Your task to perform on an android device: turn on showing notifications on the lock screen Image 0: 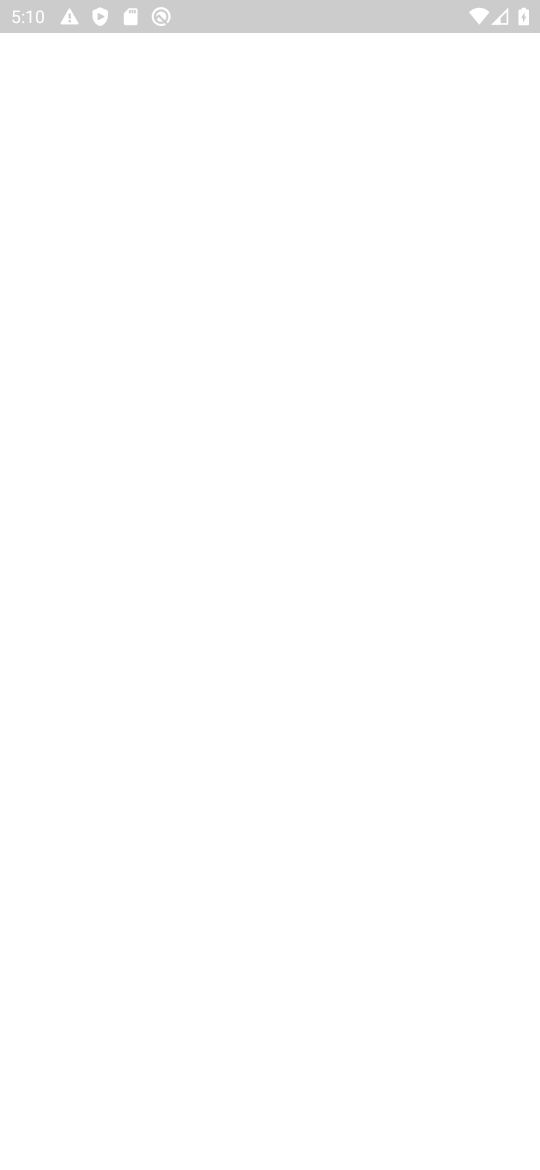
Step 0: press back button
Your task to perform on an android device: turn on showing notifications on the lock screen Image 1: 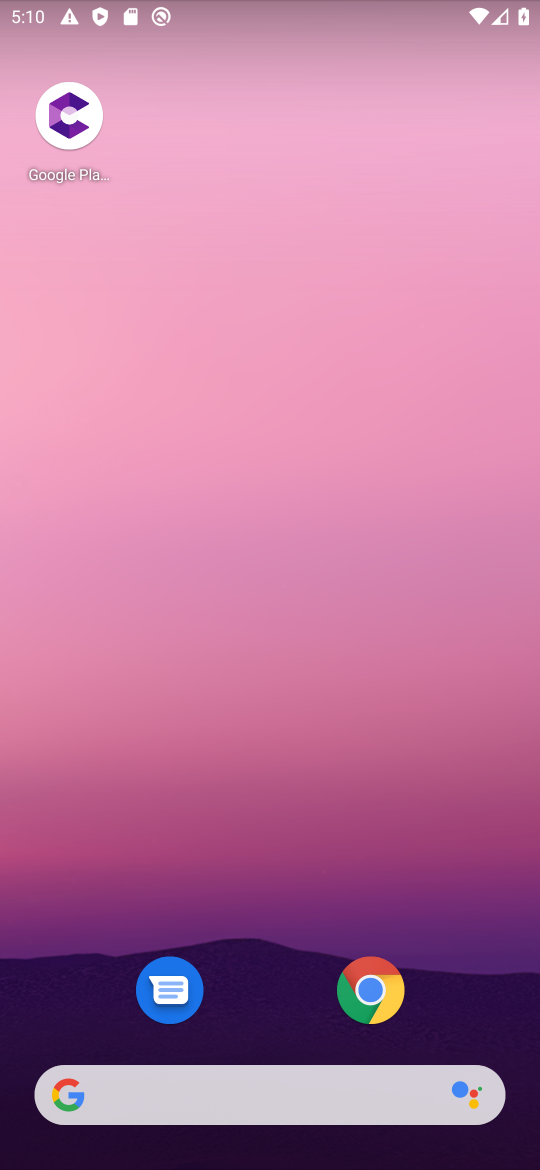
Step 1: press home button
Your task to perform on an android device: turn on showing notifications on the lock screen Image 2: 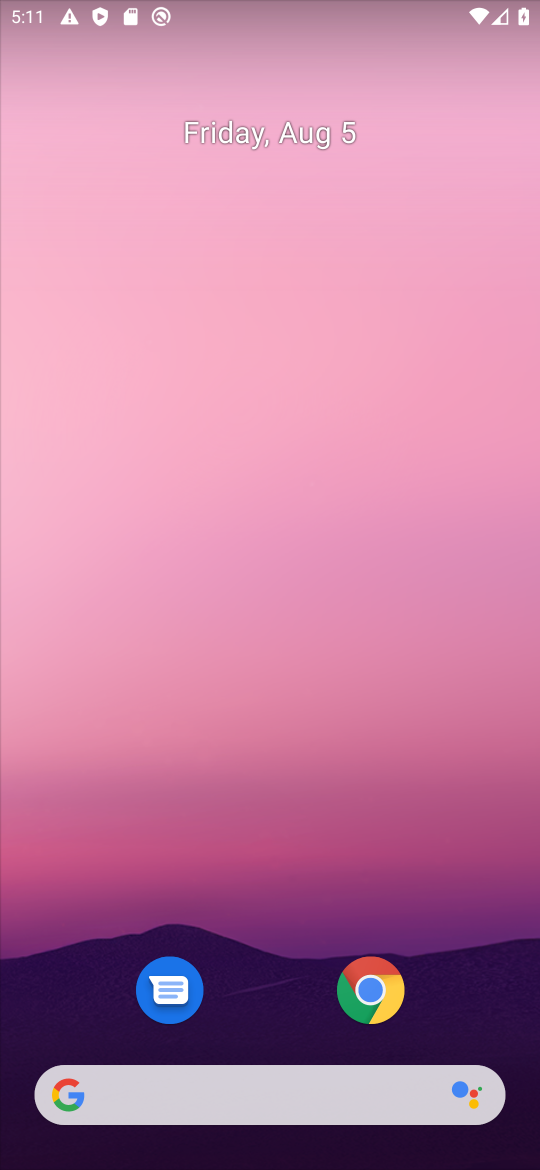
Step 2: drag from (209, 1051) to (190, 503)
Your task to perform on an android device: turn on showing notifications on the lock screen Image 3: 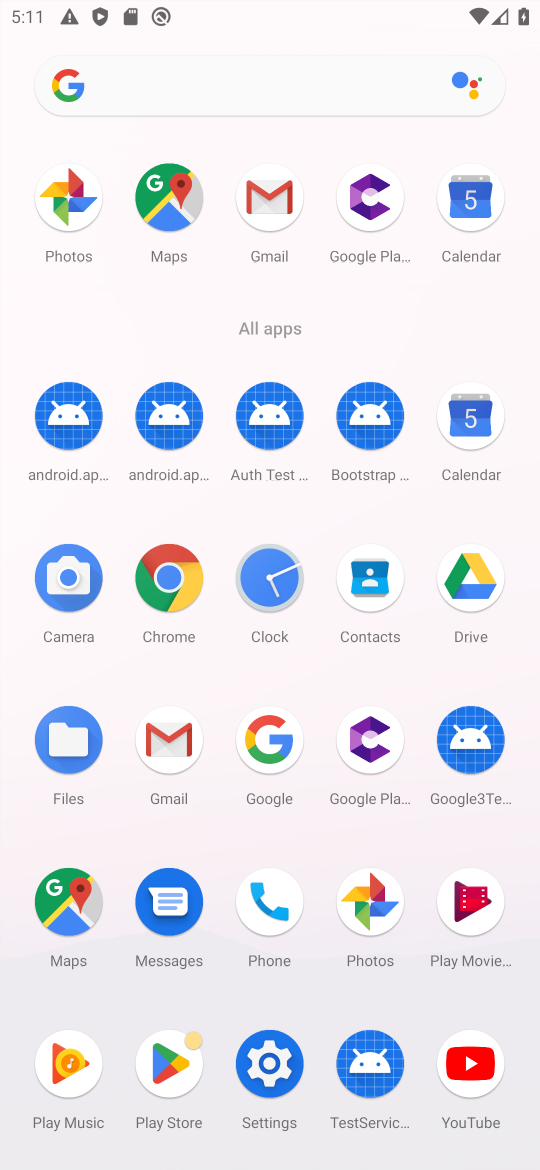
Step 3: click (263, 1061)
Your task to perform on an android device: turn on showing notifications on the lock screen Image 4: 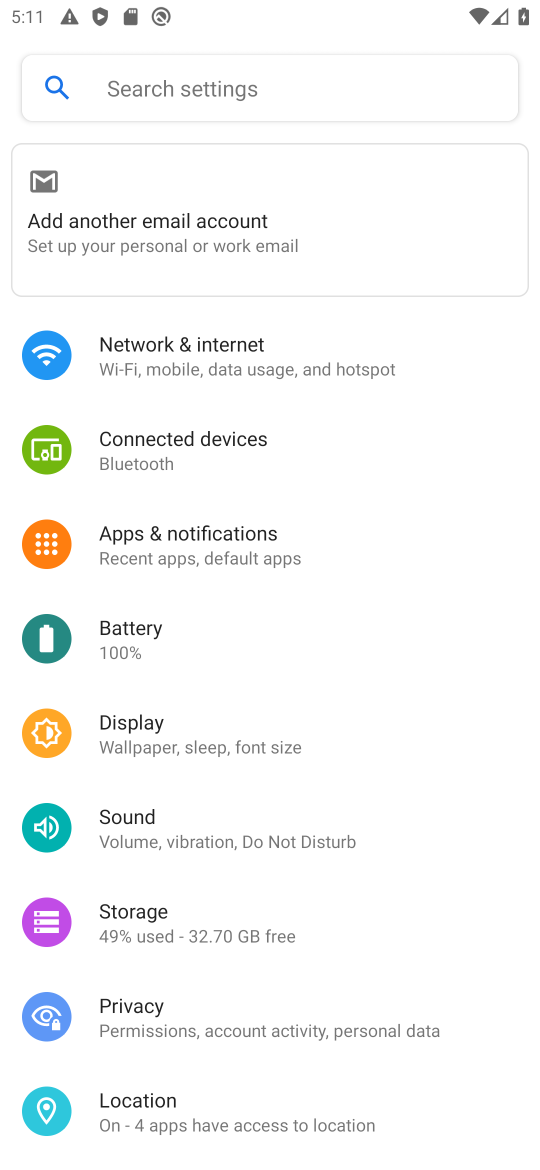
Step 4: click (142, 986)
Your task to perform on an android device: turn on showing notifications on the lock screen Image 5: 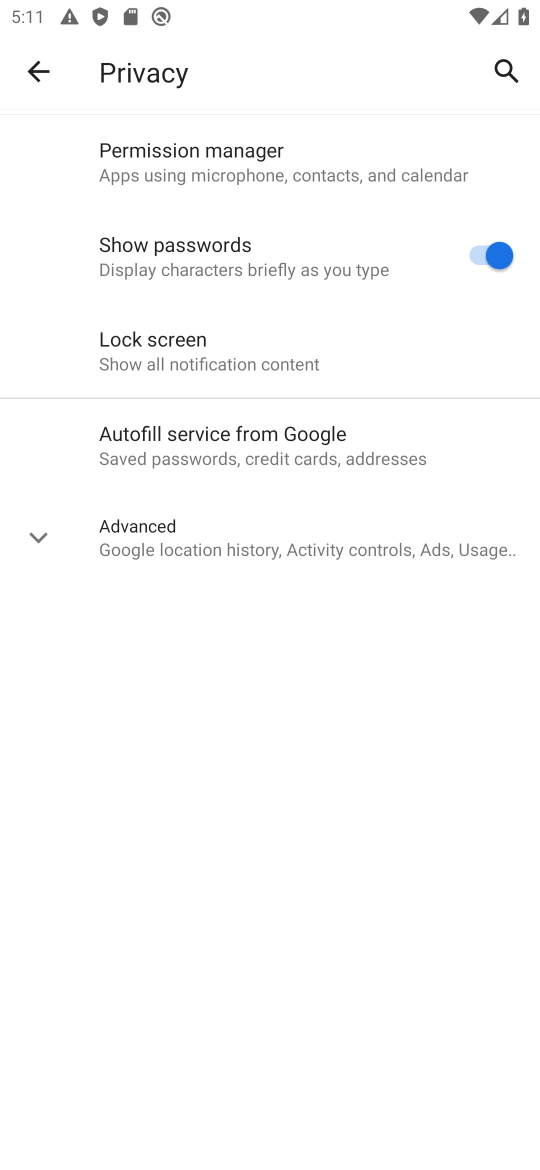
Step 5: click (130, 339)
Your task to perform on an android device: turn on showing notifications on the lock screen Image 6: 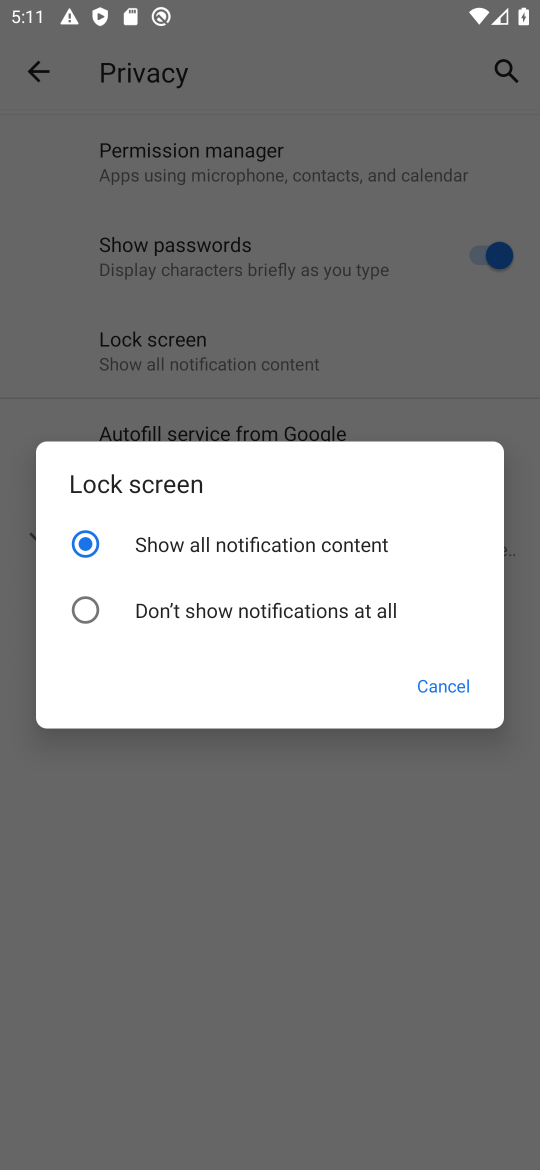
Step 6: task complete